Your task to perform on an android device: empty trash in the gmail app Image 0: 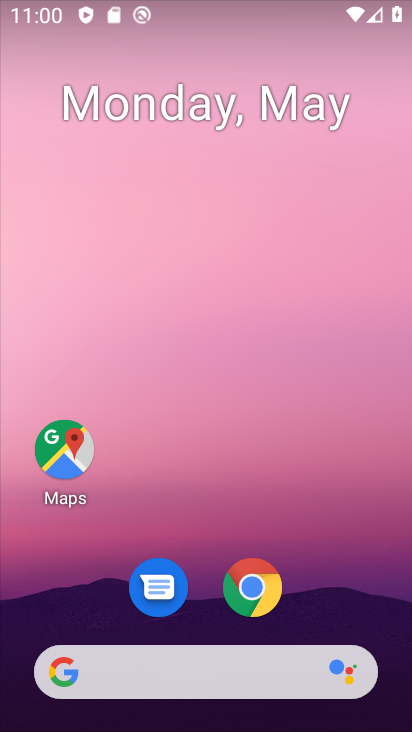
Step 0: drag from (270, 674) to (211, 177)
Your task to perform on an android device: empty trash in the gmail app Image 1: 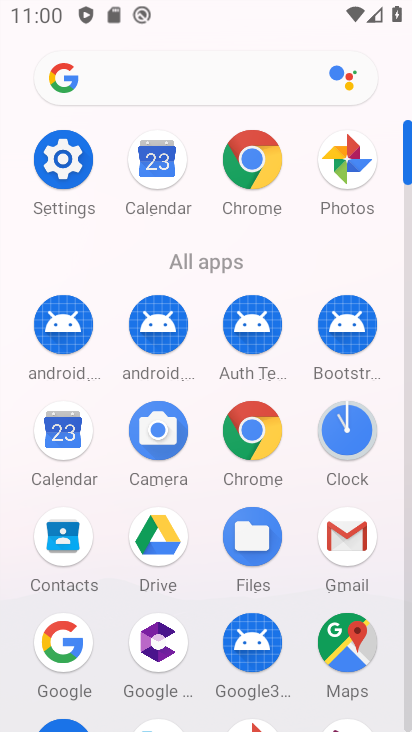
Step 1: click (331, 527)
Your task to perform on an android device: empty trash in the gmail app Image 2: 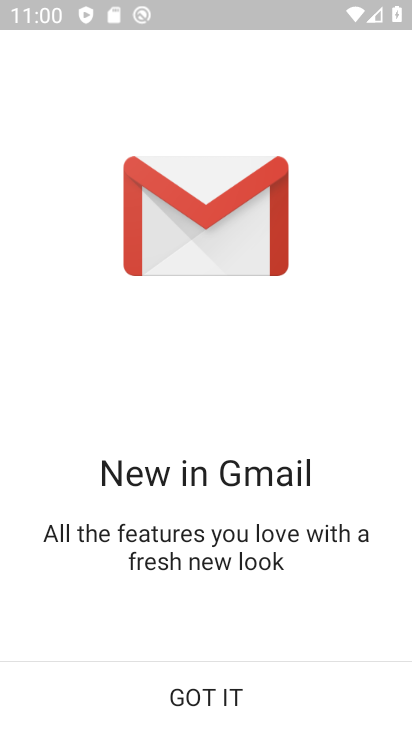
Step 2: click (188, 686)
Your task to perform on an android device: empty trash in the gmail app Image 3: 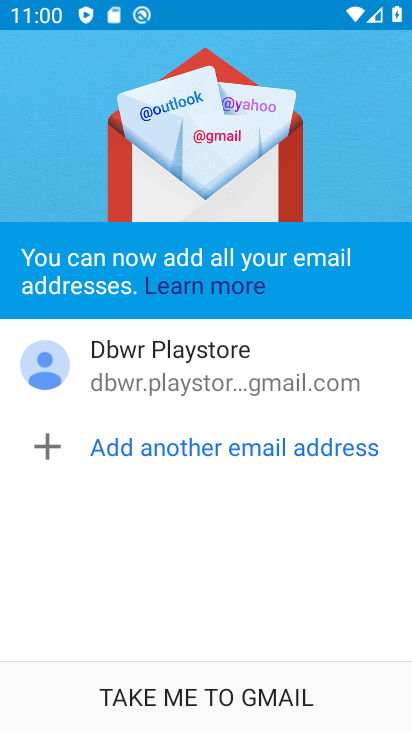
Step 3: click (207, 705)
Your task to perform on an android device: empty trash in the gmail app Image 4: 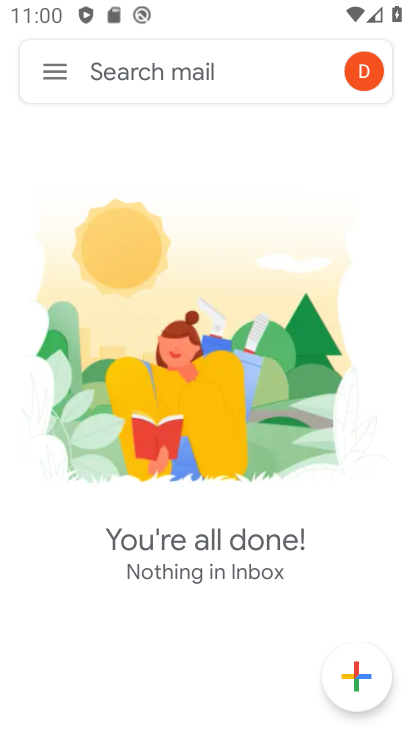
Step 4: click (46, 66)
Your task to perform on an android device: empty trash in the gmail app Image 5: 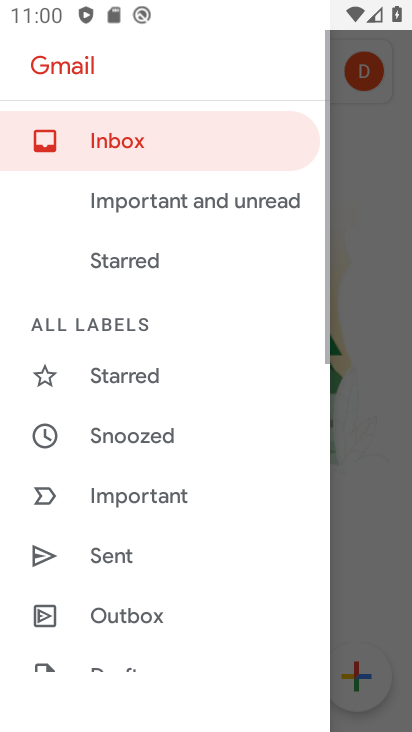
Step 5: drag from (130, 522) to (187, 264)
Your task to perform on an android device: empty trash in the gmail app Image 6: 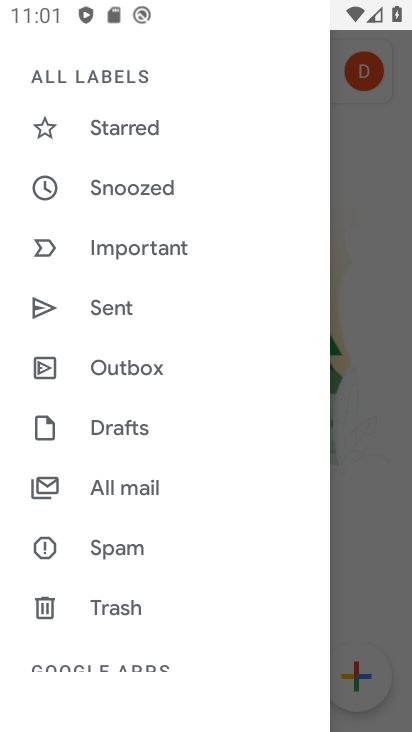
Step 6: click (129, 610)
Your task to perform on an android device: empty trash in the gmail app Image 7: 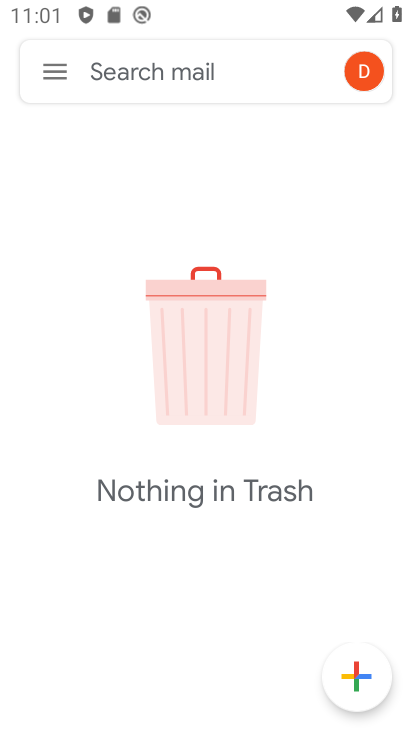
Step 7: task complete